Your task to perform on an android device: Go to privacy settings Image 0: 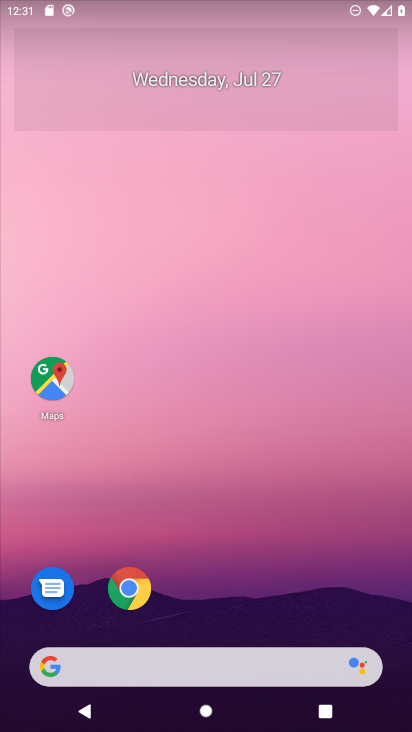
Step 0: drag from (34, 688) to (285, 2)
Your task to perform on an android device: Go to privacy settings Image 1: 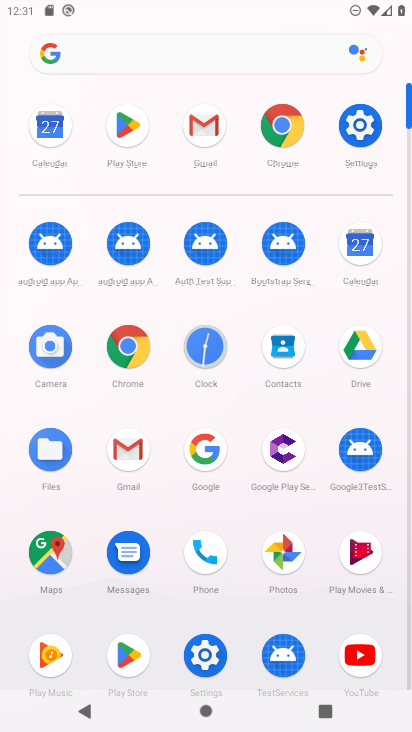
Step 1: click (187, 660)
Your task to perform on an android device: Go to privacy settings Image 2: 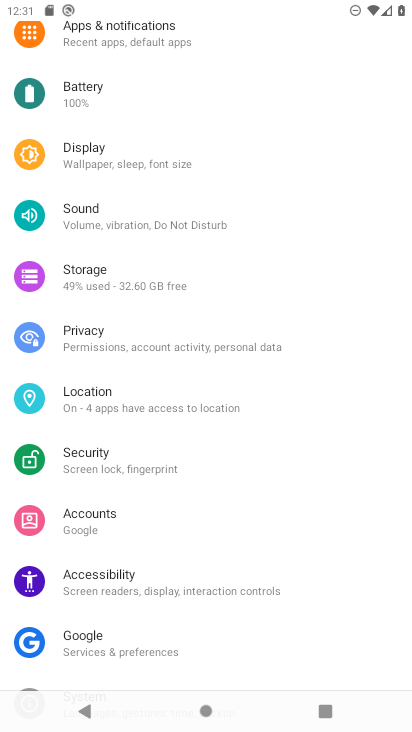
Step 2: click (106, 337)
Your task to perform on an android device: Go to privacy settings Image 3: 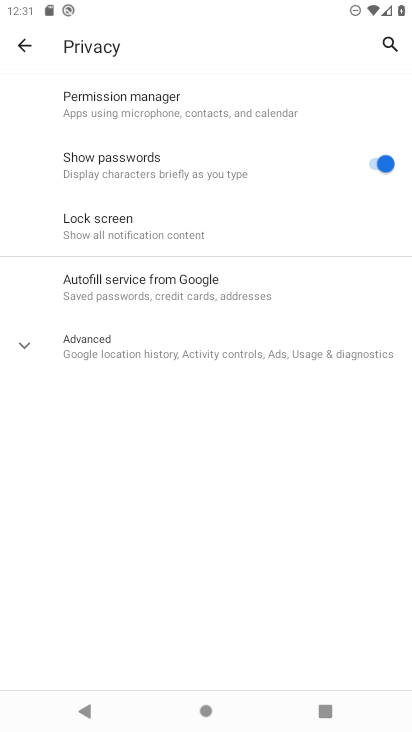
Step 3: task complete